Your task to perform on an android device: turn pop-ups on in chrome Image 0: 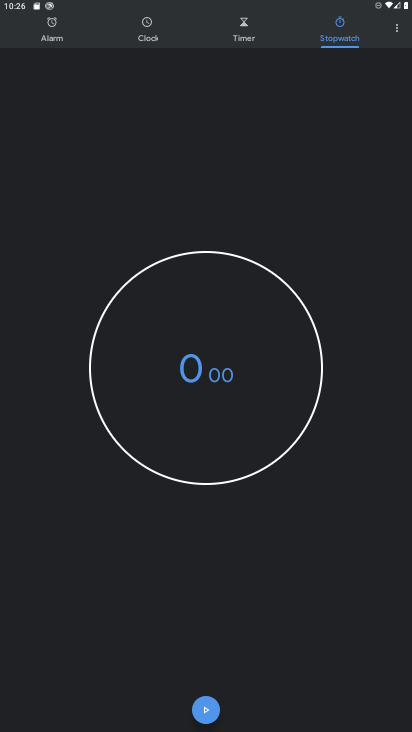
Step 0: press home button
Your task to perform on an android device: turn pop-ups on in chrome Image 1: 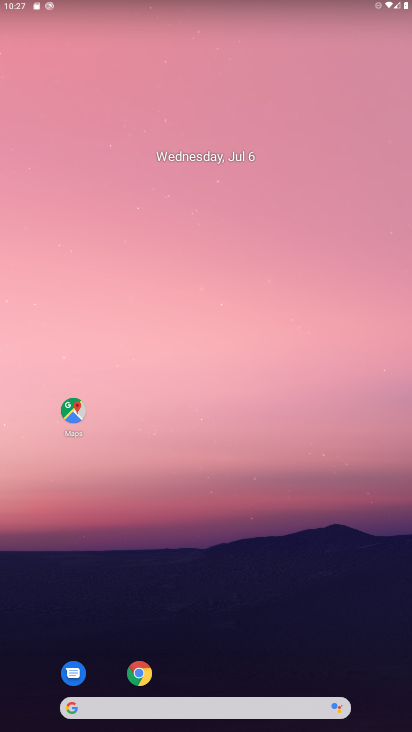
Step 1: click (141, 679)
Your task to perform on an android device: turn pop-ups on in chrome Image 2: 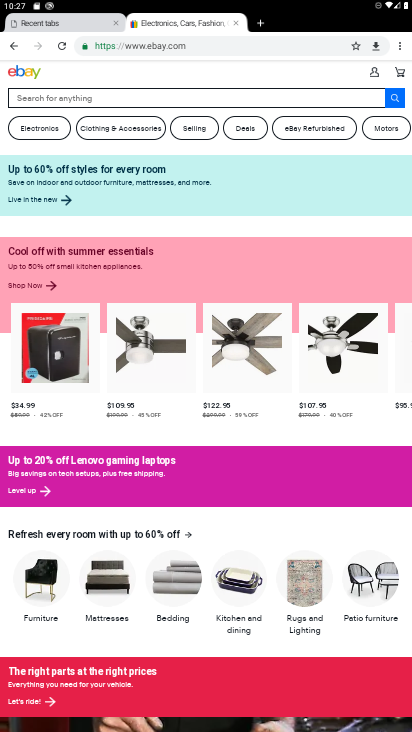
Step 2: click (405, 48)
Your task to perform on an android device: turn pop-ups on in chrome Image 3: 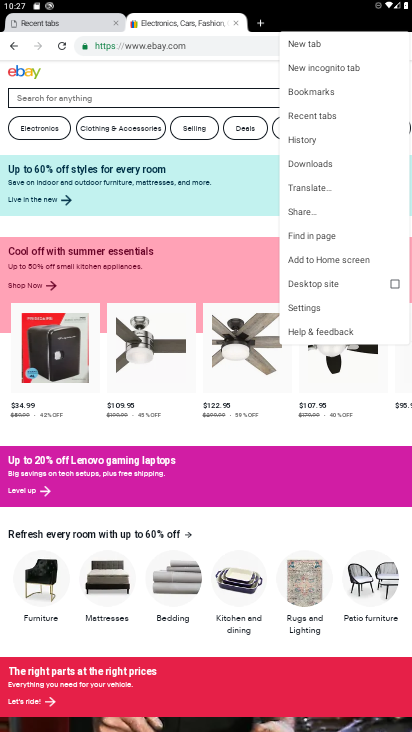
Step 3: click (328, 305)
Your task to perform on an android device: turn pop-ups on in chrome Image 4: 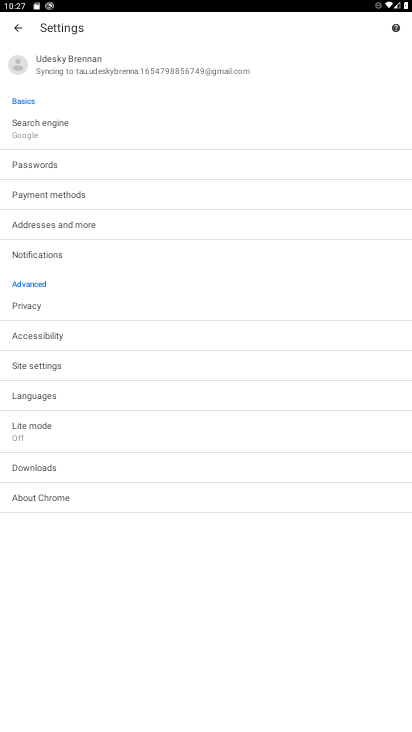
Step 4: click (51, 370)
Your task to perform on an android device: turn pop-ups on in chrome Image 5: 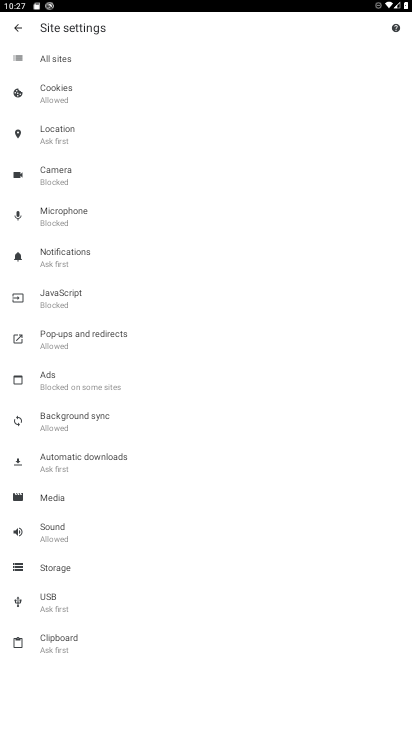
Step 5: click (51, 332)
Your task to perform on an android device: turn pop-ups on in chrome Image 6: 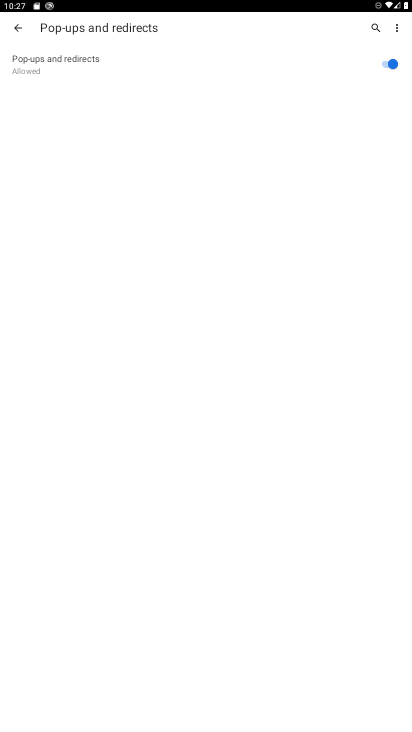
Step 6: task complete